Your task to perform on an android device: visit the assistant section in the google photos Image 0: 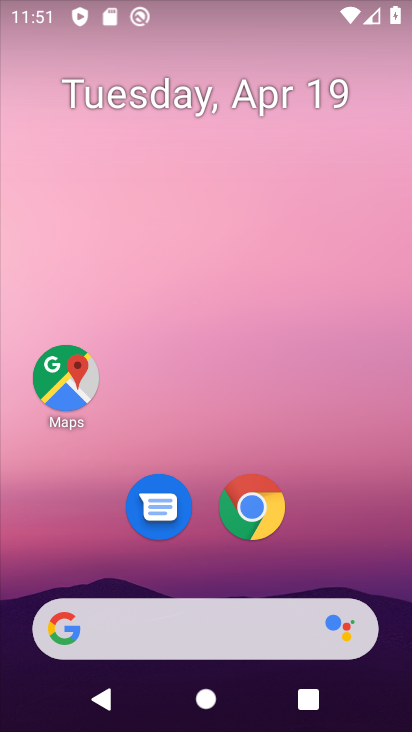
Step 0: drag from (355, 533) to (365, 90)
Your task to perform on an android device: visit the assistant section in the google photos Image 1: 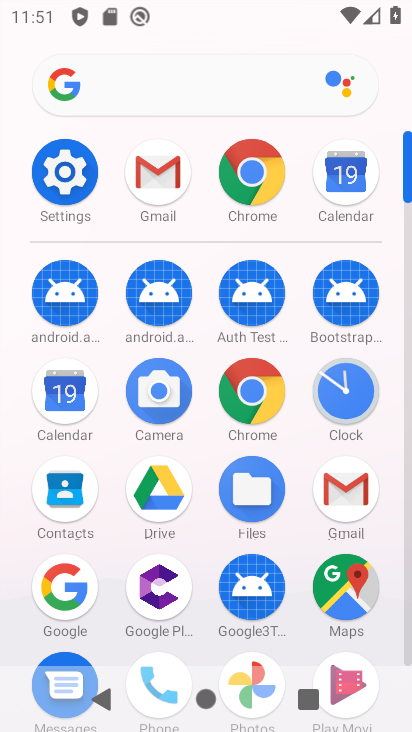
Step 1: drag from (310, 531) to (344, 300)
Your task to perform on an android device: visit the assistant section in the google photos Image 2: 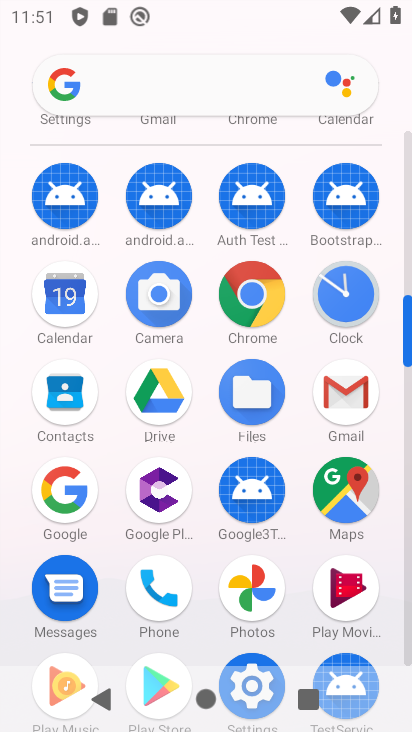
Step 2: click (263, 589)
Your task to perform on an android device: visit the assistant section in the google photos Image 3: 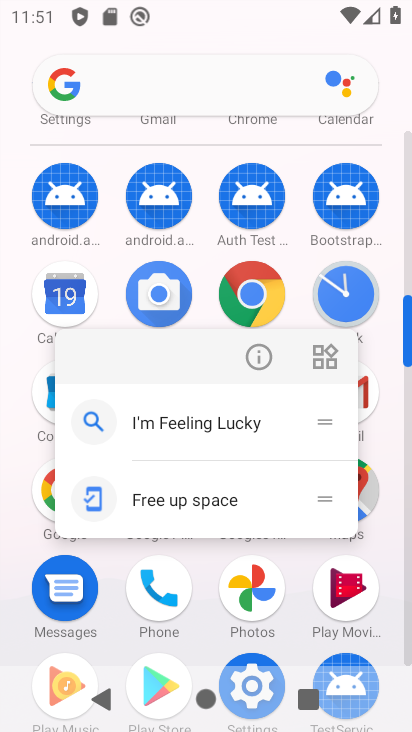
Step 3: click (263, 589)
Your task to perform on an android device: visit the assistant section in the google photos Image 4: 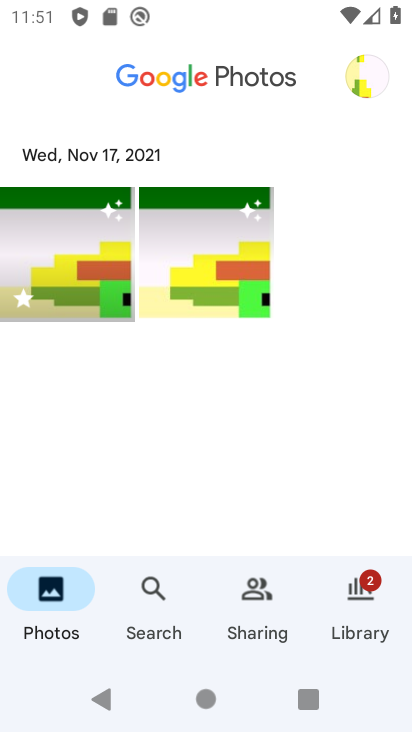
Step 4: click (361, 594)
Your task to perform on an android device: visit the assistant section in the google photos Image 5: 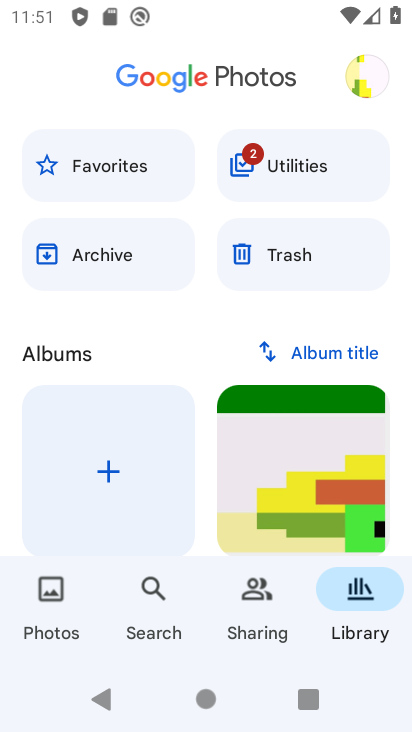
Step 5: click (159, 594)
Your task to perform on an android device: visit the assistant section in the google photos Image 6: 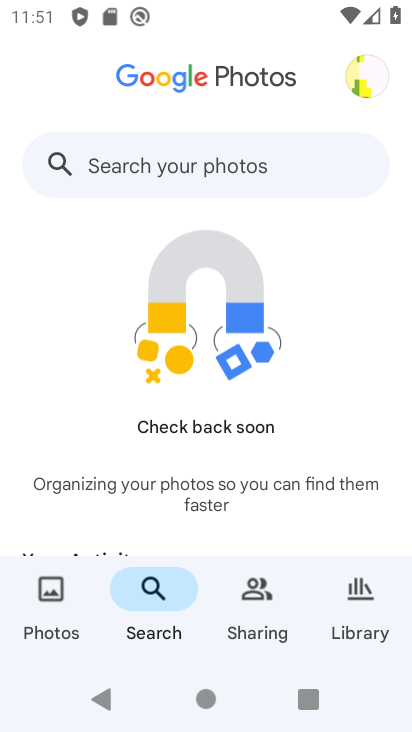
Step 6: click (213, 156)
Your task to perform on an android device: visit the assistant section in the google photos Image 7: 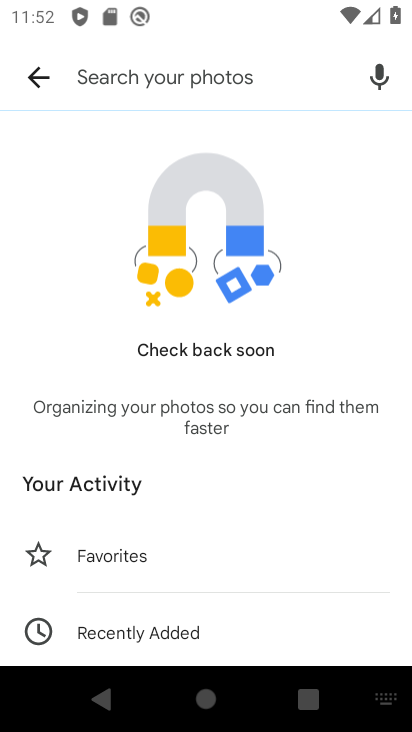
Step 7: type "assistant"
Your task to perform on an android device: visit the assistant section in the google photos Image 8: 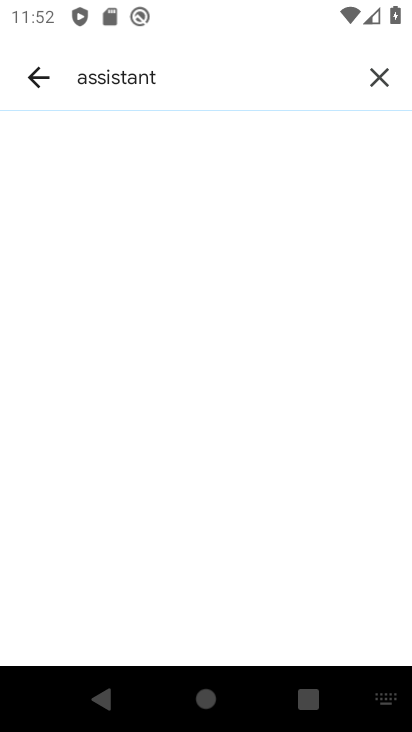
Step 8: type " section"
Your task to perform on an android device: visit the assistant section in the google photos Image 9: 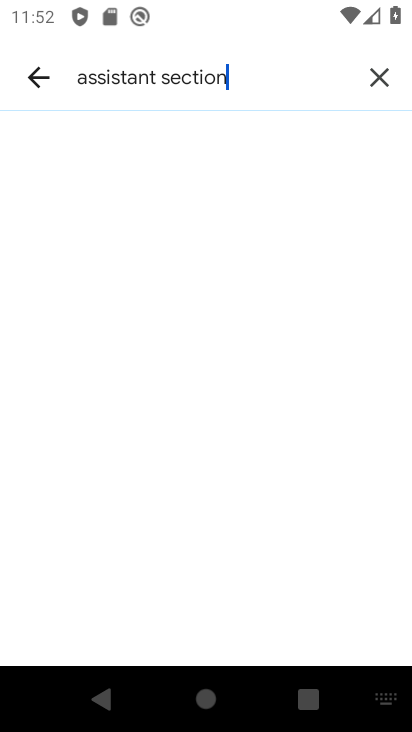
Step 9: task complete